Your task to perform on an android device: Show me popular videos on Youtube Image 0: 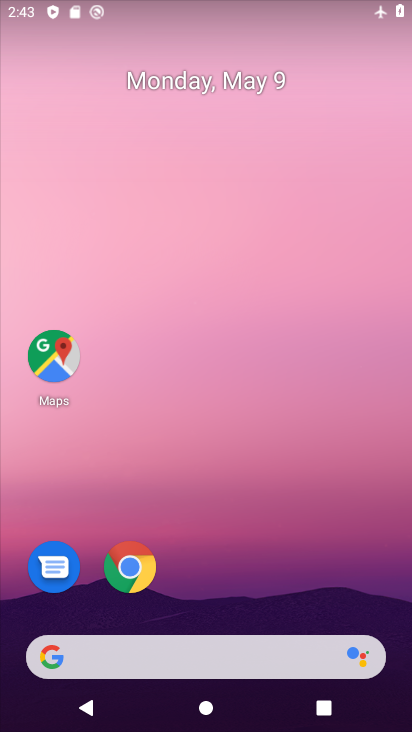
Step 0: drag from (267, 516) to (204, 55)
Your task to perform on an android device: Show me popular videos on Youtube Image 1: 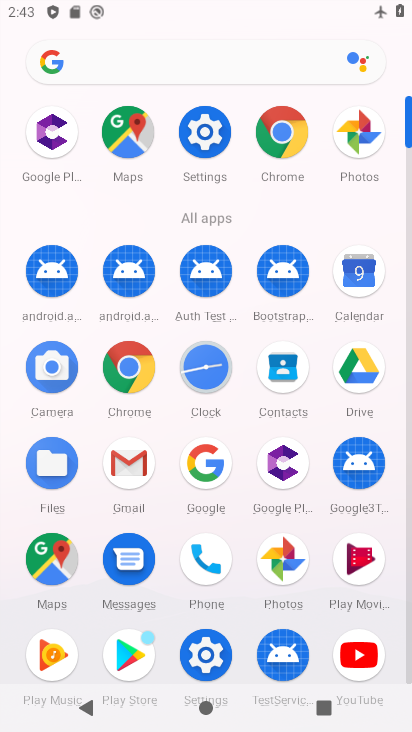
Step 1: click (371, 642)
Your task to perform on an android device: Show me popular videos on Youtube Image 2: 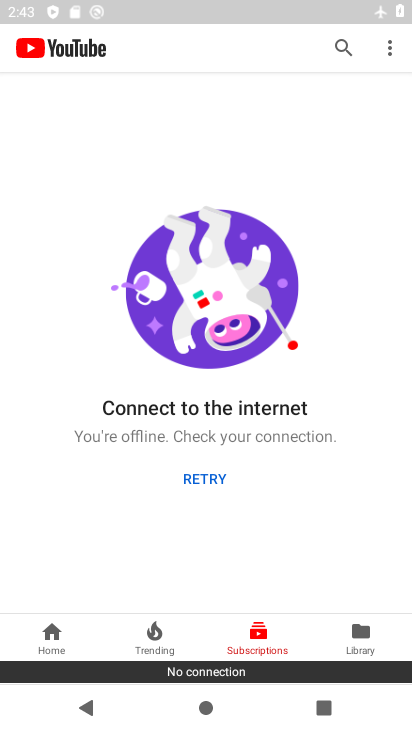
Step 2: click (64, 643)
Your task to perform on an android device: Show me popular videos on Youtube Image 3: 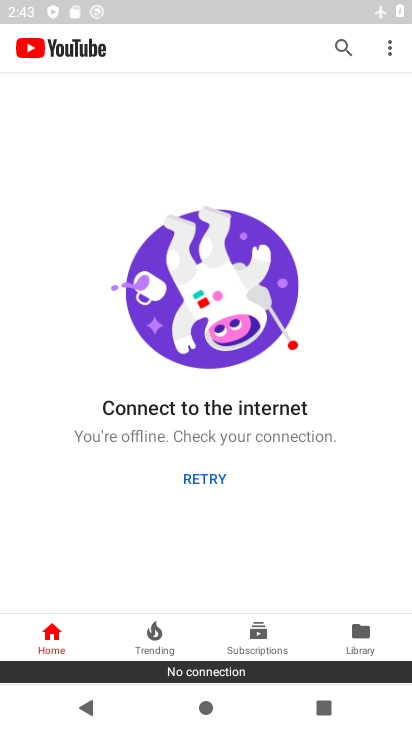
Step 3: click (342, 36)
Your task to perform on an android device: Show me popular videos on Youtube Image 4: 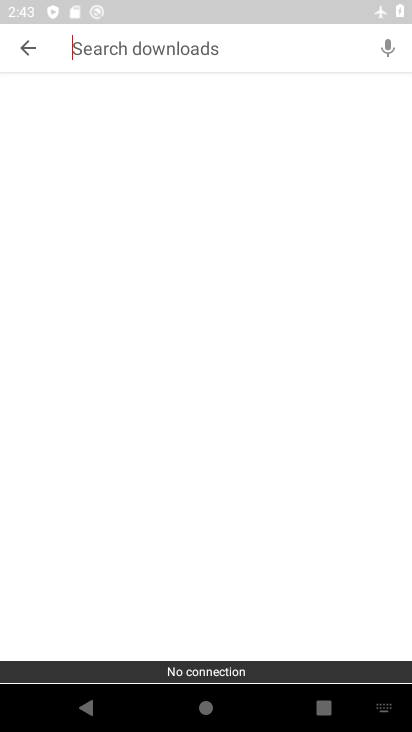
Step 4: type "popular videos"
Your task to perform on an android device: Show me popular videos on Youtube Image 5: 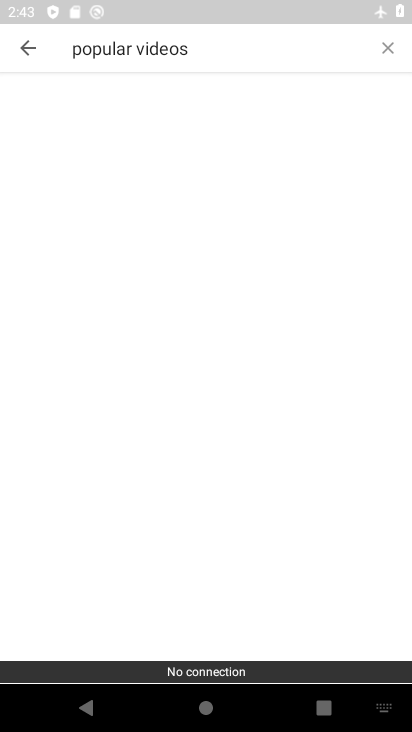
Step 5: task complete